Your task to perform on an android device: turn off notifications in google photos Image 0: 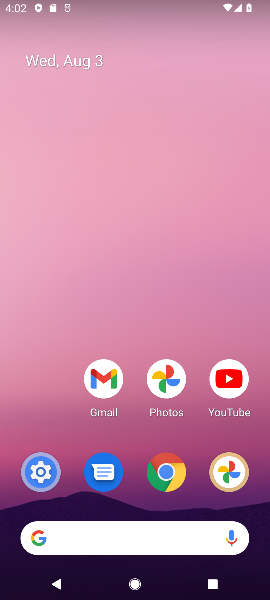
Step 0: drag from (140, 416) to (205, 0)
Your task to perform on an android device: turn off notifications in google photos Image 1: 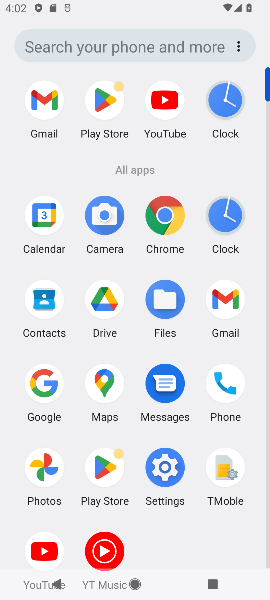
Step 1: click (37, 465)
Your task to perform on an android device: turn off notifications in google photos Image 2: 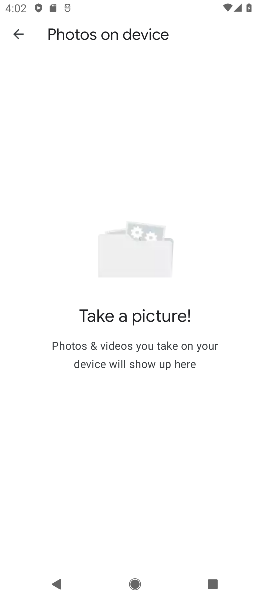
Step 2: click (23, 30)
Your task to perform on an android device: turn off notifications in google photos Image 3: 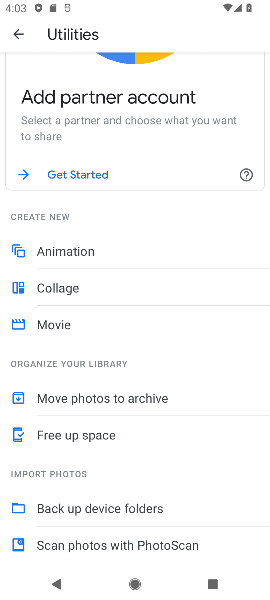
Step 3: click (23, 30)
Your task to perform on an android device: turn off notifications in google photos Image 4: 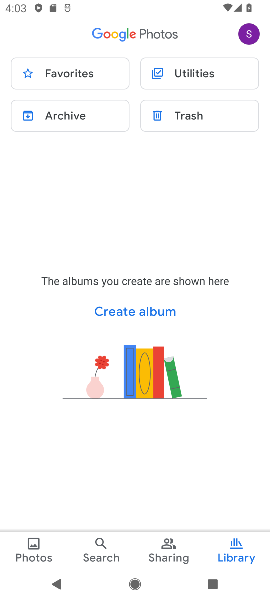
Step 4: click (23, 30)
Your task to perform on an android device: turn off notifications in google photos Image 5: 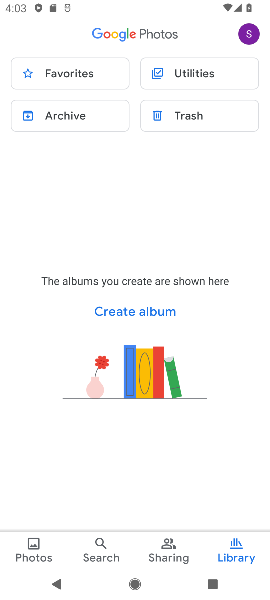
Step 5: click (240, 34)
Your task to perform on an android device: turn off notifications in google photos Image 6: 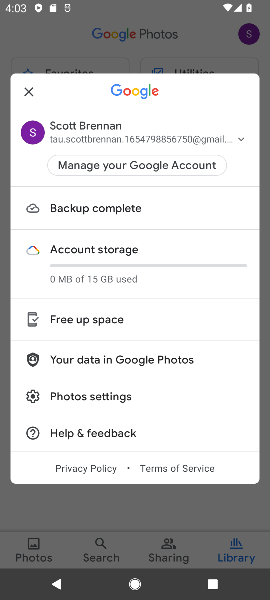
Step 6: click (127, 392)
Your task to perform on an android device: turn off notifications in google photos Image 7: 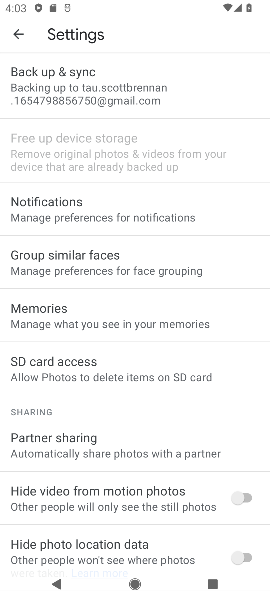
Step 7: click (111, 216)
Your task to perform on an android device: turn off notifications in google photos Image 8: 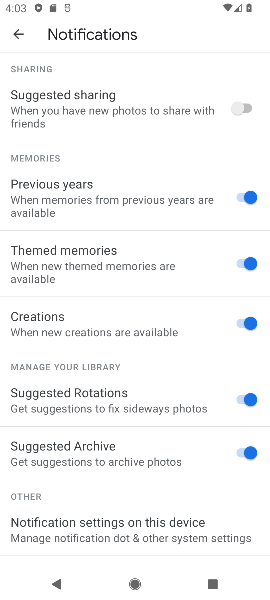
Step 8: click (125, 528)
Your task to perform on an android device: turn off notifications in google photos Image 9: 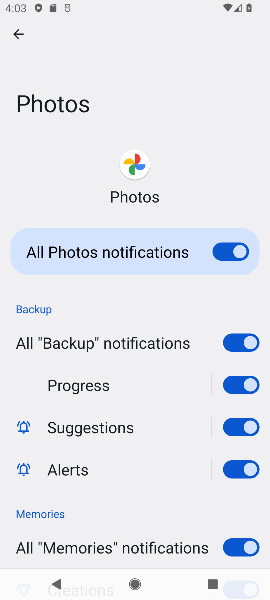
Step 9: click (241, 241)
Your task to perform on an android device: turn off notifications in google photos Image 10: 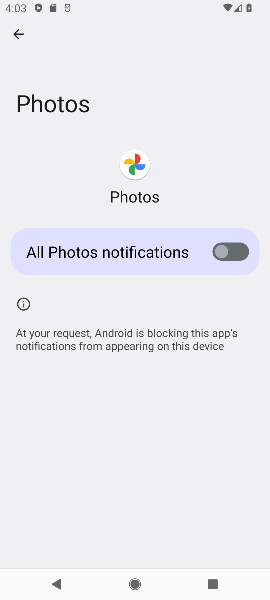
Step 10: task complete